Your task to perform on an android device: turn off location Image 0: 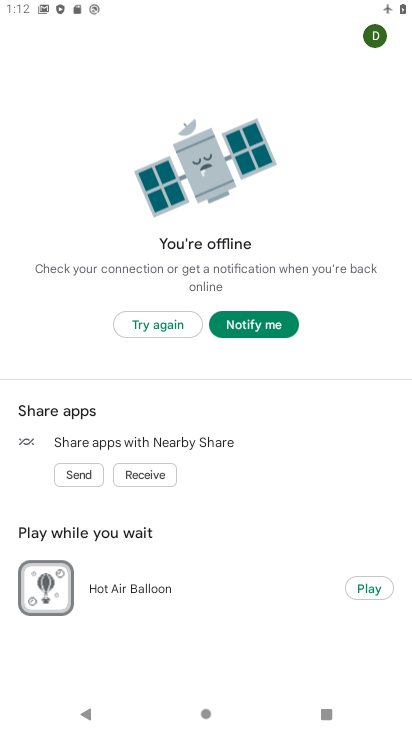
Step 0: press home button
Your task to perform on an android device: turn off location Image 1: 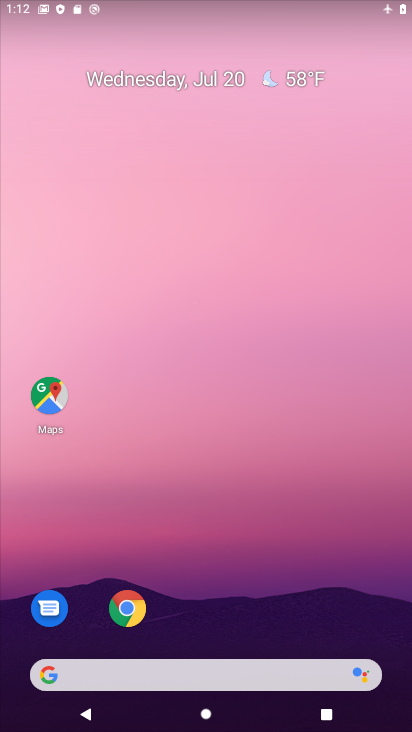
Step 1: drag from (255, 702) to (241, 136)
Your task to perform on an android device: turn off location Image 2: 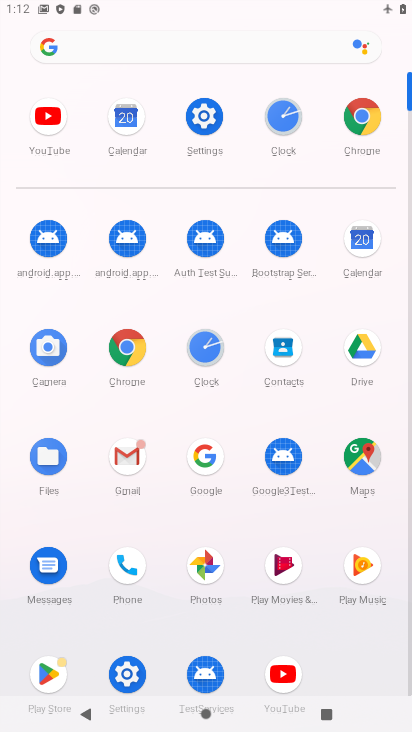
Step 2: click (200, 111)
Your task to perform on an android device: turn off location Image 3: 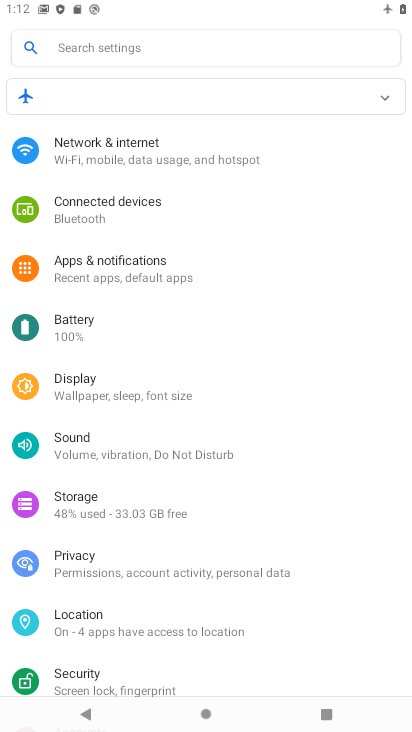
Step 3: click (109, 627)
Your task to perform on an android device: turn off location Image 4: 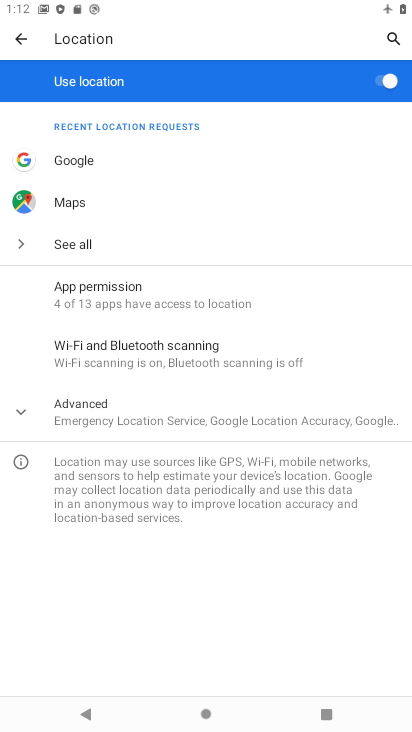
Step 4: click (377, 86)
Your task to perform on an android device: turn off location Image 5: 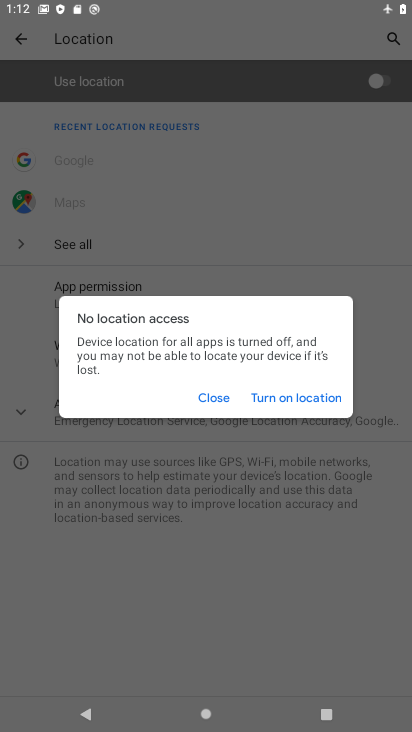
Step 5: click (222, 397)
Your task to perform on an android device: turn off location Image 6: 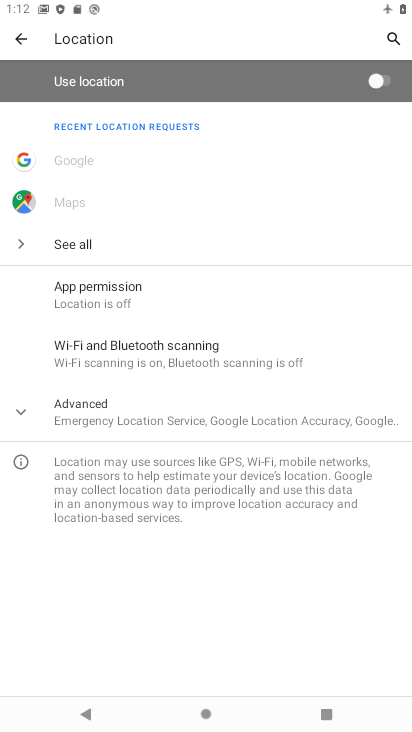
Step 6: task complete